Your task to perform on an android device: Open Google Maps and go to "Timeline" Image 0: 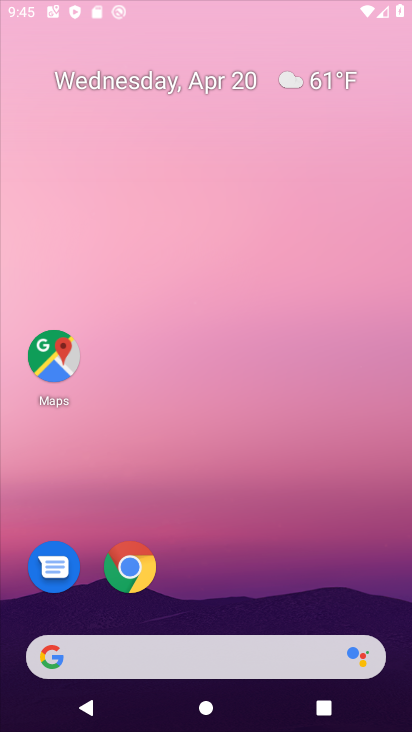
Step 0: click (55, 341)
Your task to perform on an android device: Open Google Maps and go to "Timeline" Image 1: 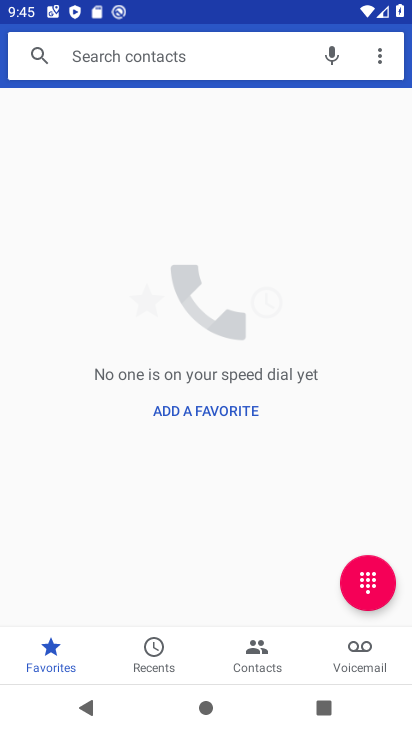
Step 1: press back button
Your task to perform on an android device: Open Google Maps and go to "Timeline" Image 2: 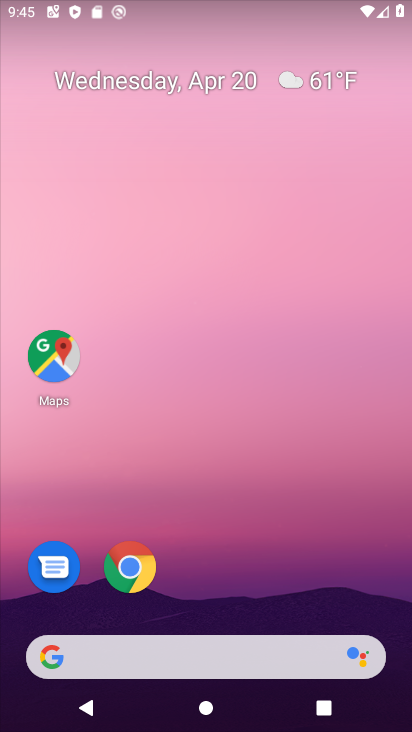
Step 2: click (58, 347)
Your task to perform on an android device: Open Google Maps and go to "Timeline" Image 3: 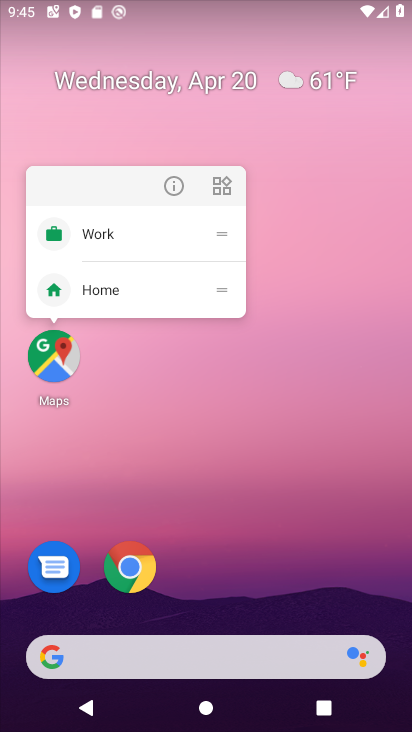
Step 3: click (52, 347)
Your task to perform on an android device: Open Google Maps and go to "Timeline" Image 4: 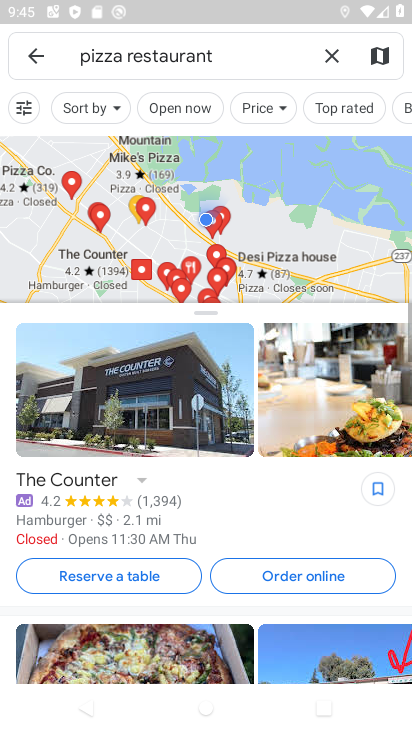
Step 4: click (41, 50)
Your task to perform on an android device: Open Google Maps and go to "Timeline" Image 5: 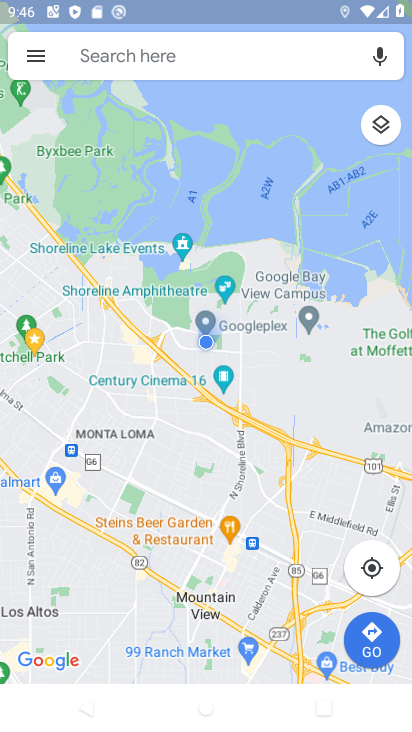
Step 5: click (35, 54)
Your task to perform on an android device: Open Google Maps and go to "Timeline" Image 6: 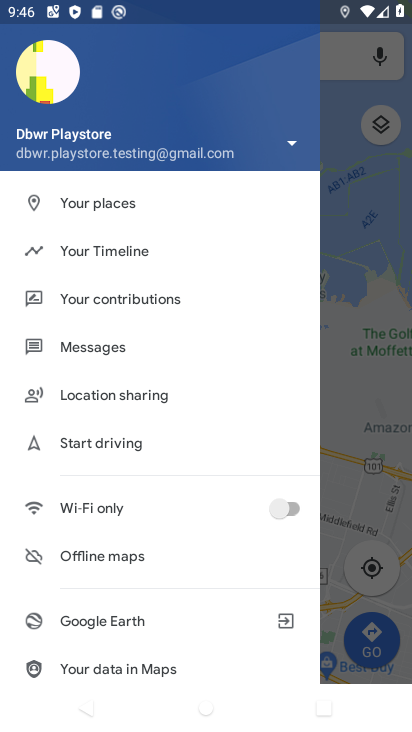
Step 6: click (131, 243)
Your task to perform on an android device: Open Google Maps and go to "Timeline" Image 7: 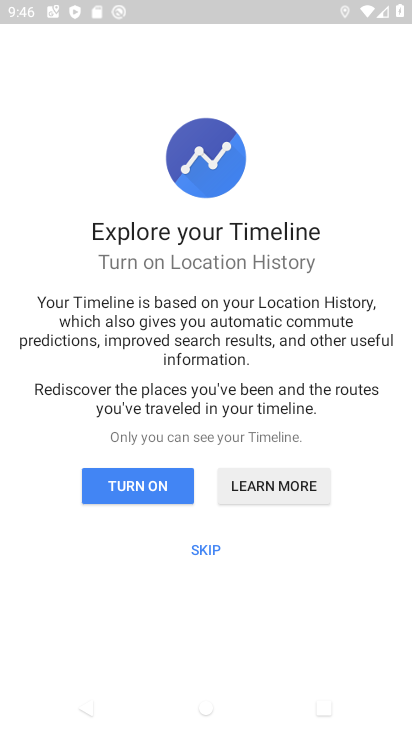
Step 7: click (209, 548)
Your task to perform on an android device: Open Google Maps and go to "Timeline" Image 8: 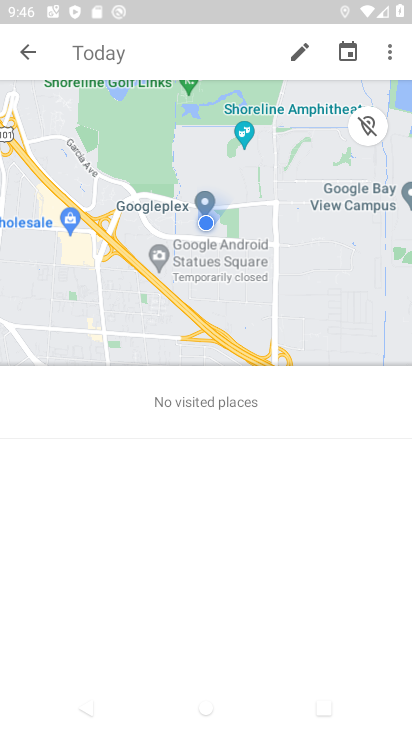
Step 8: task complete